Your task to perform on an android device: Open Youtube and go to the subscriptions tab Image 0: 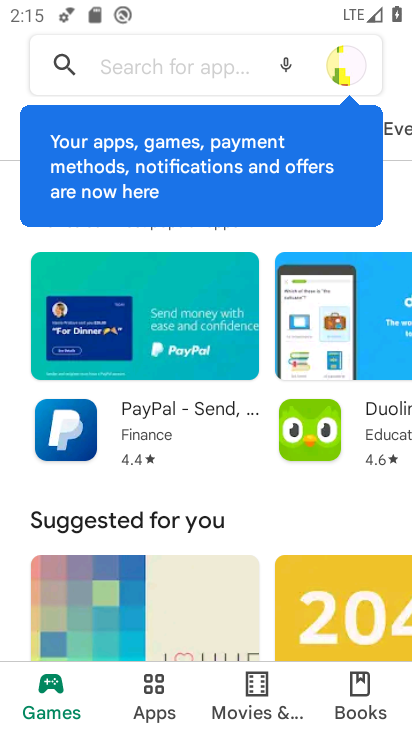
Step 0: press home button
Your task to perform on an android device: Open Youtube and go to the subscriptions tab Image 1: 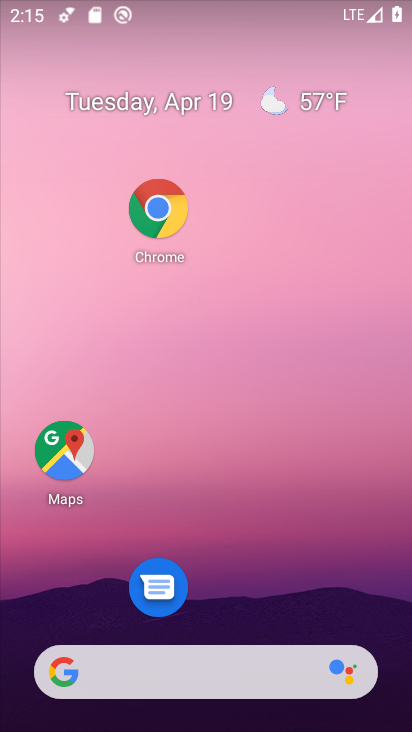
Step 1: drag from (223, 477) to (145, 141)
Your task to perform on an android device: Open Youtube and go to the subscriptions tab Image 2: 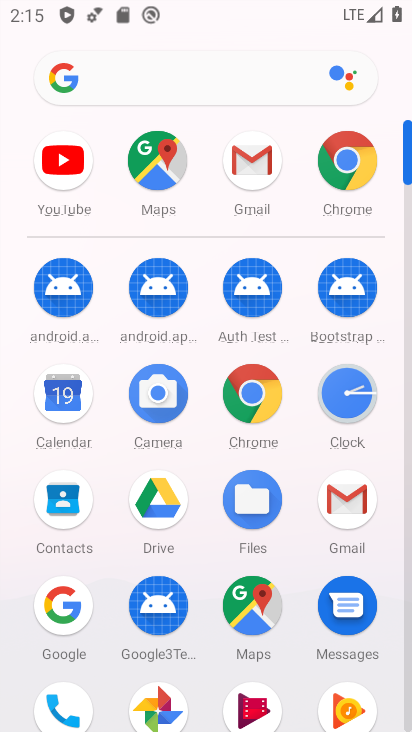
Step 2: click (61, 153)
Your task to perform on an android device: Open Youtube and go to the subscriptions tab Image 3: 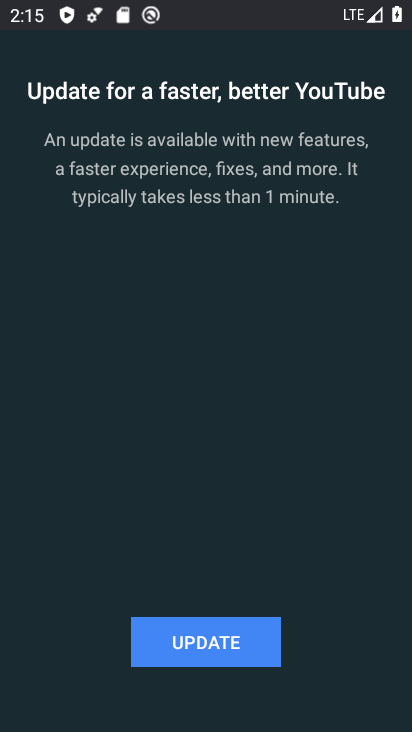
Step 3: click (193, 641)
Your task to perform on an android device: Open Youtube and go to the subscriptions tab Image 4: 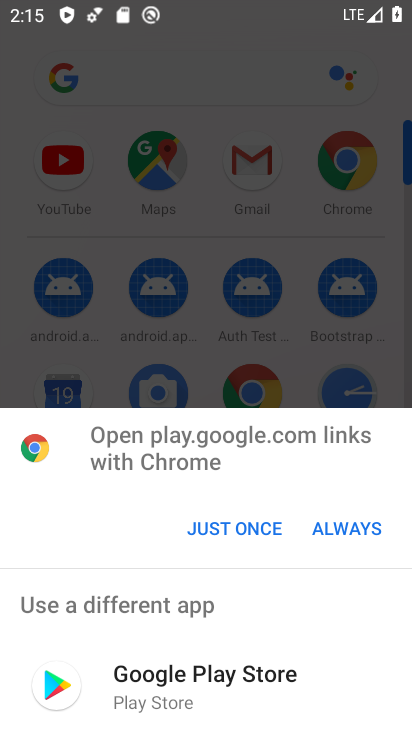
Step 4: click (251, 524)
Your task to perform on an android device: Open Youtube and go to the subscriptions tab Image 5: 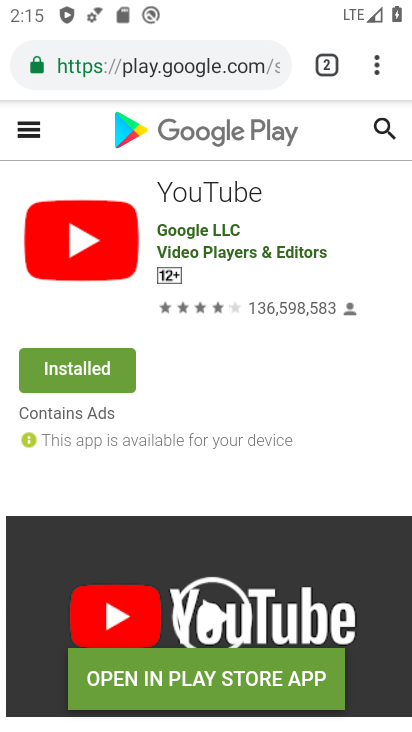
Step 5: click (75, 361)
Your task to perform on an android device: Open Youtube and go to the subscriptions tab Image 6: 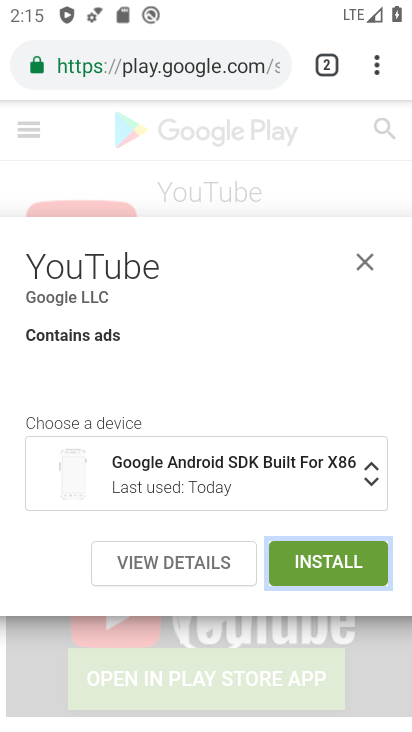
Step 6: click (360, 260)
Your task to perform on an android device: Open Youtube and go to the subscriptions tab Image 7: 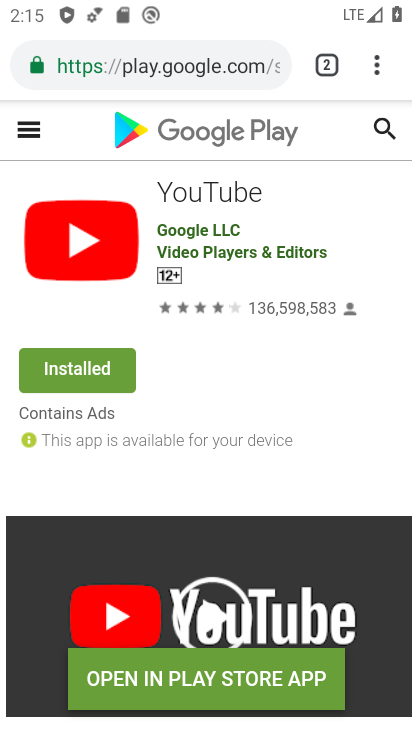
Step 7: drag from (237, 640) to (280, 367)
Your task to perform on an android device: Open Youtube and go to the subscriptions tab Image 8: 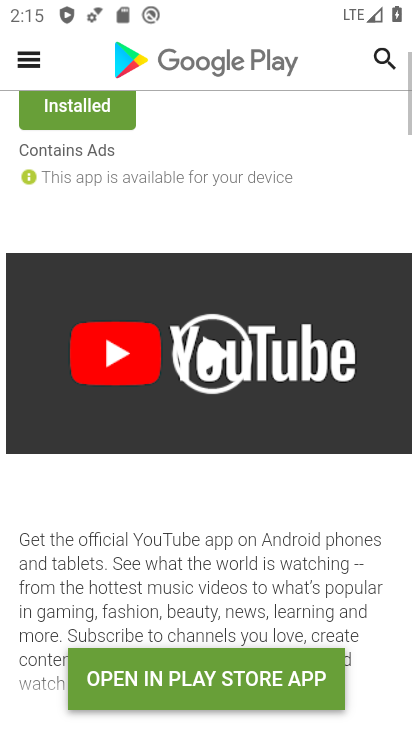
Step 8: drag from (227, 612) to (175, 294)
Your task to perform on an android device: Open Youtube and go to the subscriptions tab Image 9: 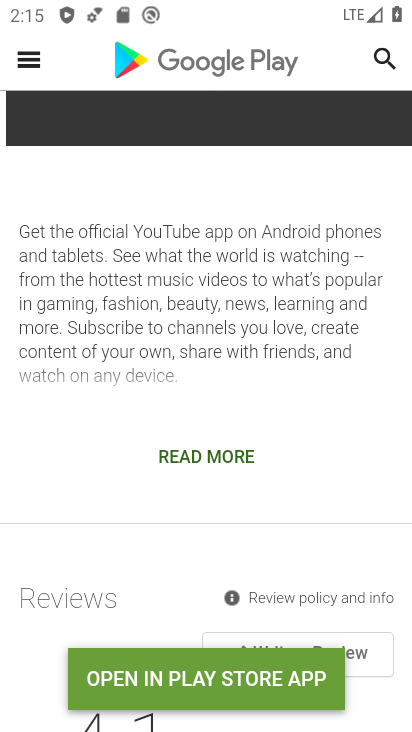
Step 9: drag from (249, 345) to (280, 595)
Your task to perform on an android device: Open Youtube and go to the subscriptions tab Image 10: 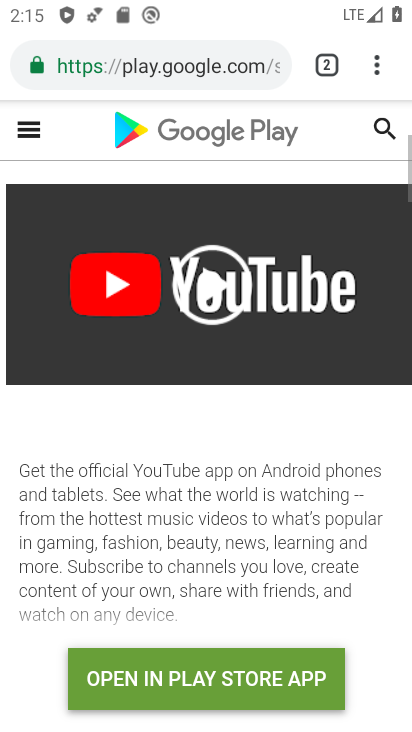
Step 10: drag from (246, 381) to (259, 547)
Your task to perform on an android device: Open Youtube and go to the subscriptions tab Image 11: 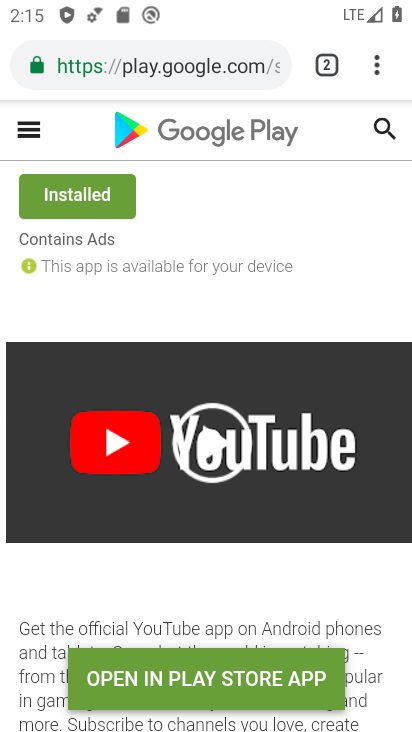
Step 11: click (221, 435)
Your task to perform on an android device: Open Youtube and go to the subscriptions tab Image 12: 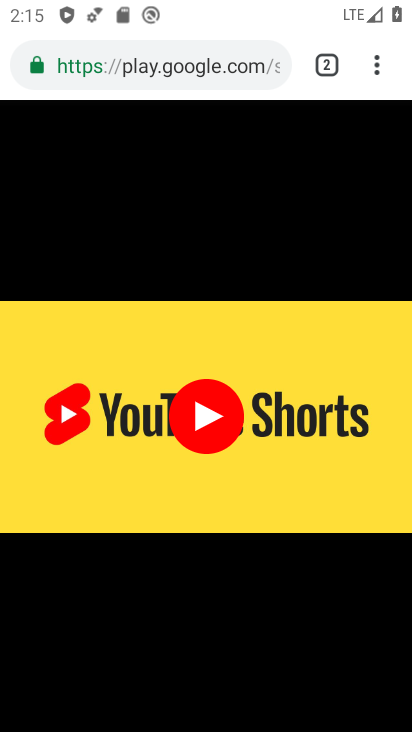
Step 12: click (188, 412)
Your task to perform on an android device: Open Youtube and go to the subscriptions tab Image 13: 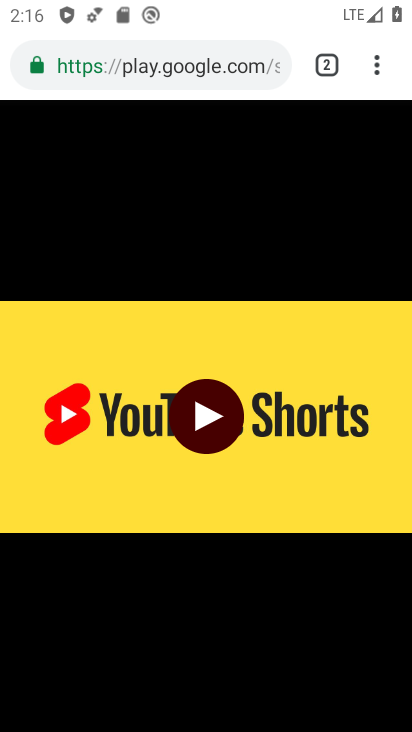
Step 13: click (204, 424)
Your task to perform on an android device: Open Youtube and go to the subscriptions tab Image 14: 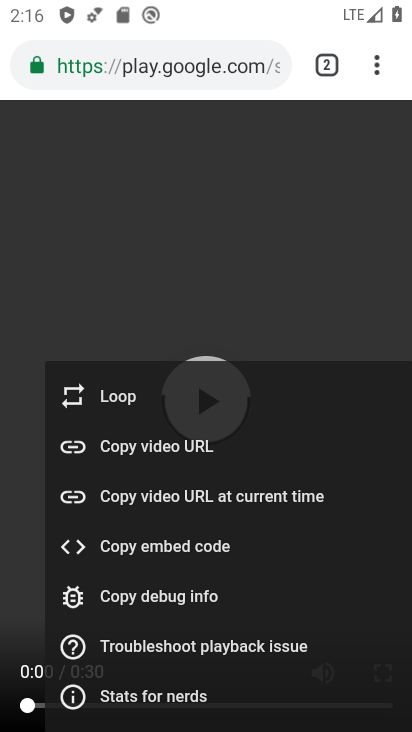
Step 14: click (203, 413)
Your task to perform on an android device: Open Youtube and go to the subscriptions tab Image 15: 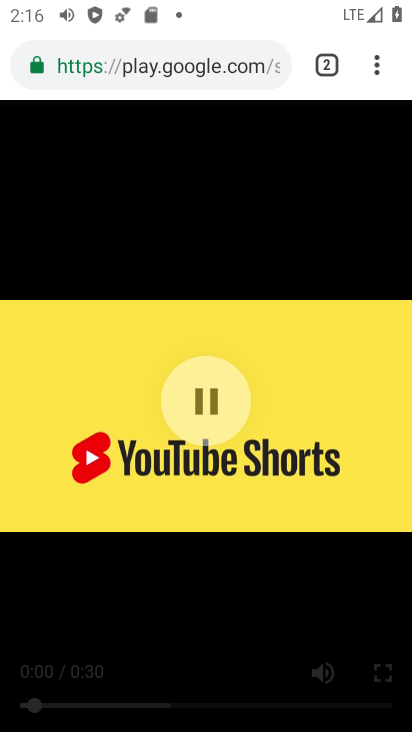
Step 15: click (164, 290)
Your task to perform on an android device: Open Youtube and go to the subscriptions tab Image 16: 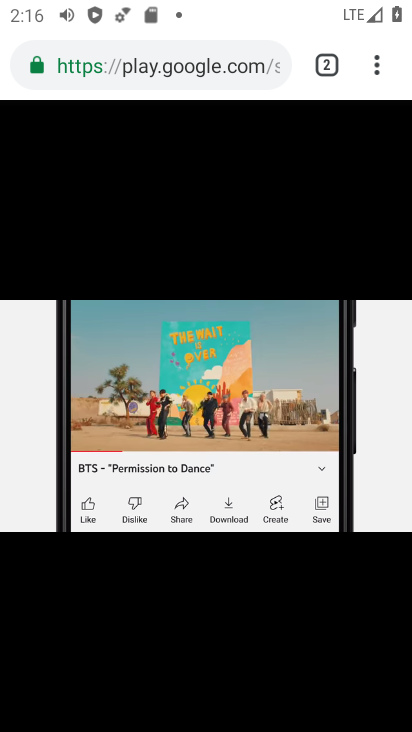
Step 16: click (218, 603)
Your task to perform on an android device: Open Youtube and go to the subscriptions tab Image 17: 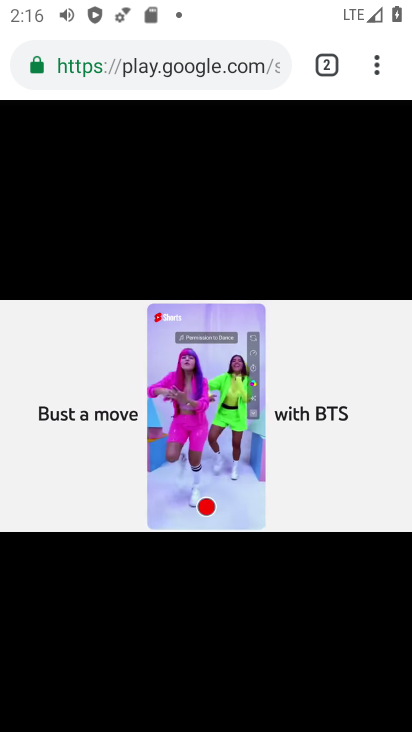
Step 17: press home button
Your task to perform on an android device: Open Youtube and go to the subscriptions tab Image 18: 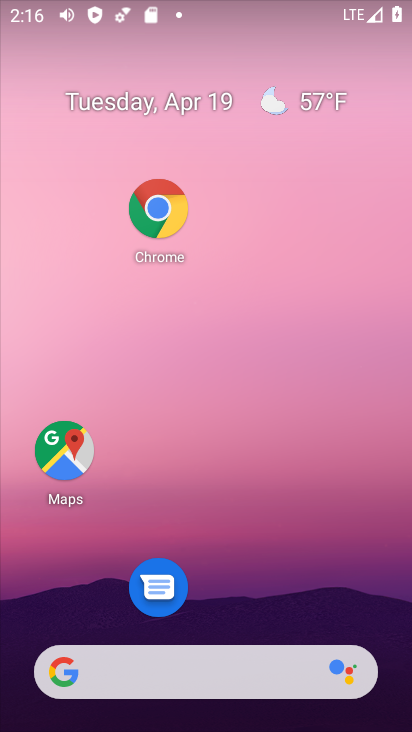
Step 18: drag from (227, 472) to (165, 210)
Your task to perform on an android device: Open Youtube and go to the subscriptions tab Image 19: 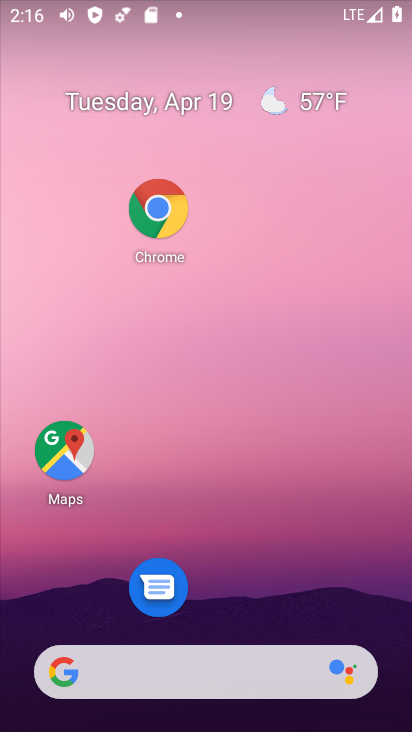
Step 19: click (126, 322)
Your task to perform on an android device: Open Youtube and go to the subscriptions tab Image 20: 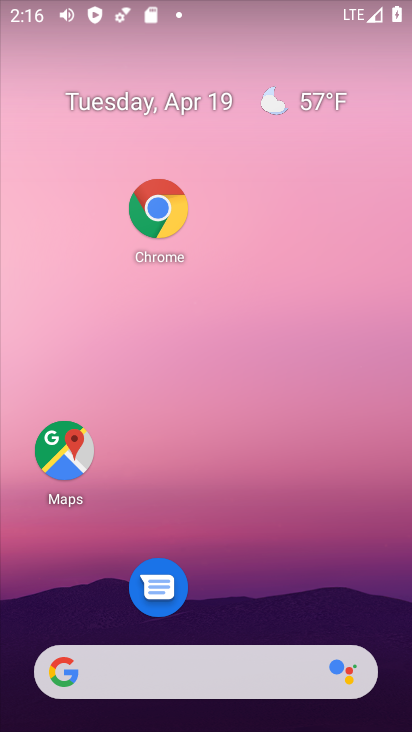
Step 20: drag from (208, 369) to (167, 204)
Your task to perform on an android device: Open Youtube and go to the subscriptions tab Image 21: 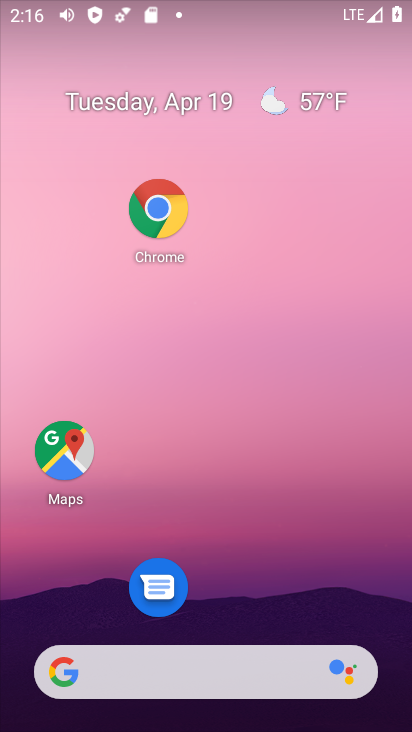
Step 21: drag from (302, 610) to (215, 194)
Your task to perform on an android device: Open Youtube and go to the subscriptions tab Image 22: 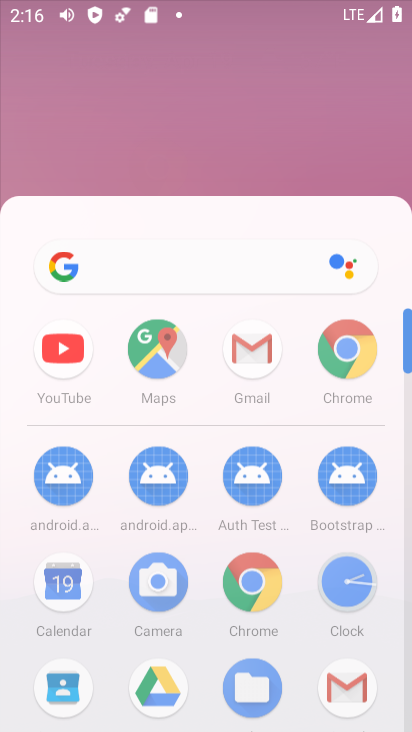
Step 22: drag from (309, 517) to (194, 176)
Your task to perform on an android device: Open Youtube and go to the subscriptions tab Image 23: 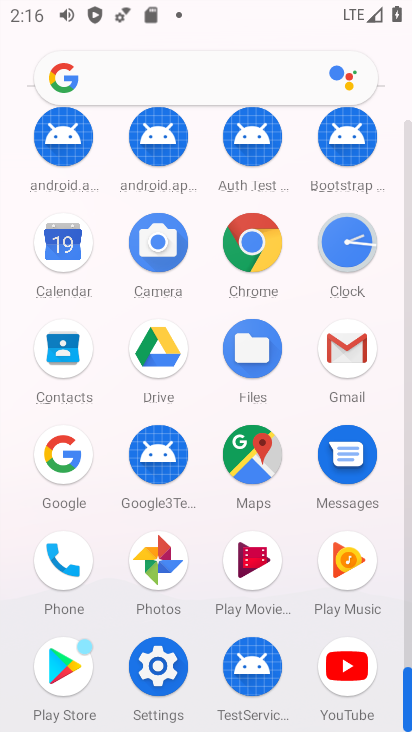
Step 23: click (342, 666)
Your task to perform on an android device: Open Youtube and go to the subscriptions tab Image 24: 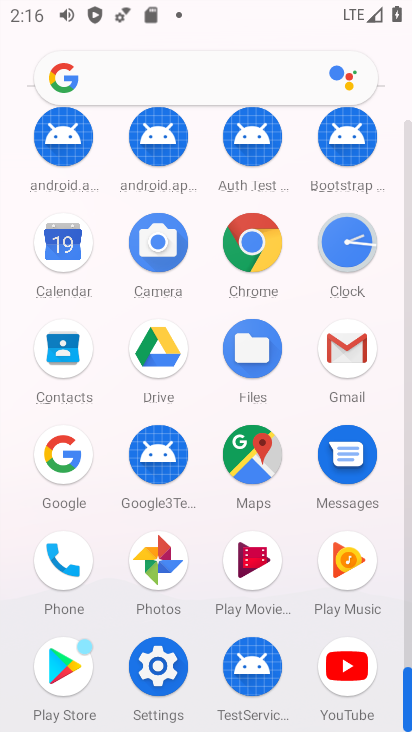
Step 24: click (342, 659)
Your task to perform on an android device: Open Youtube and go to the subscriptions tab Image 25: 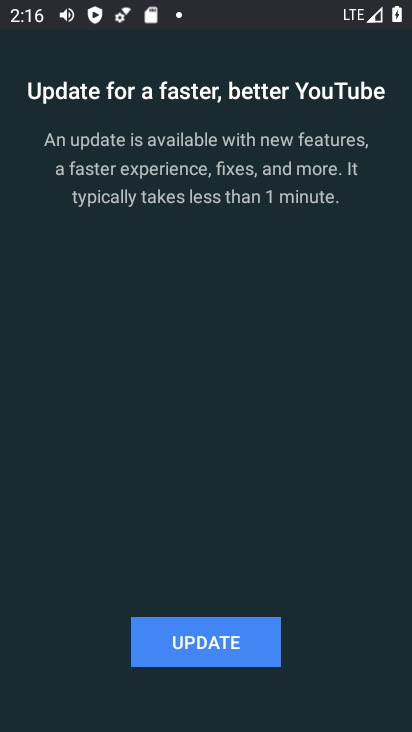
Step 25: click (193, 640)
Your task to perform on an android device: Open Youtube and go to the subscriptions tab Image 26: 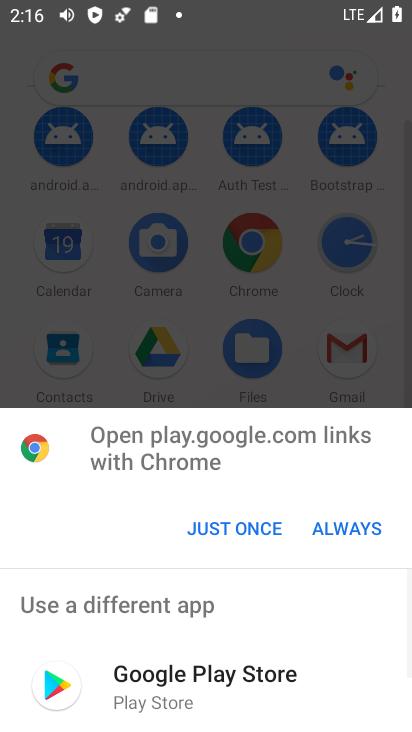
Step 26: click (174, 673)
Your task to perform on an android device: Open Youtube and go to the subscriptions tab Image 27: 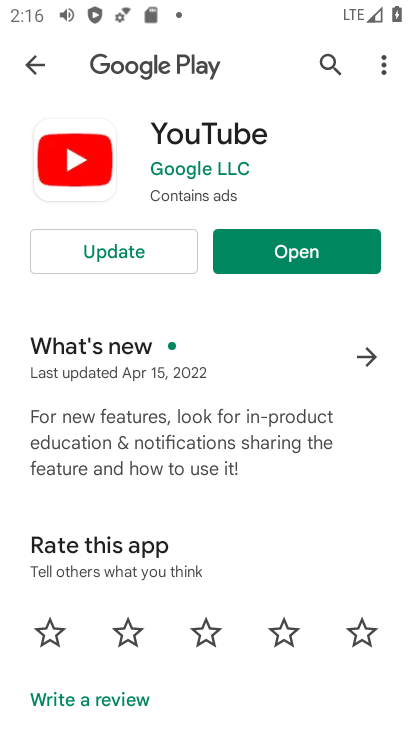
Step 27: click (94, 245)
Your task to perform on an android device: Open Youtube and go to the subscriptions tab Image 28: 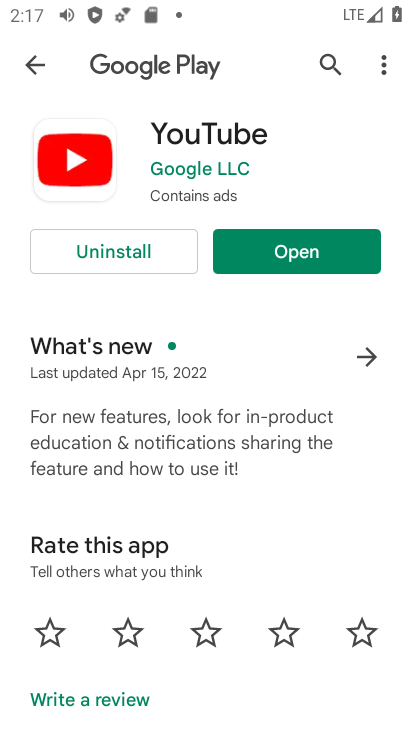
Step 28: click (287, 251)
Your task to perform on an android device: Open Youtube and go to the subscriptions tab Image 29: 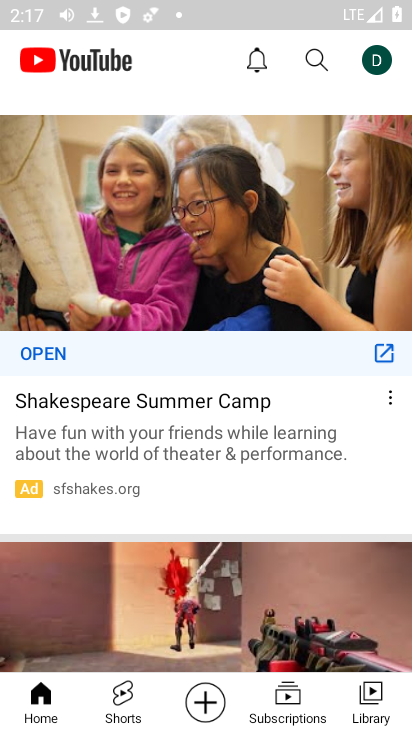
Step 29: click (285, 690)
Your task to perform on an android device: Open Youtube and go to the subscriptions tab Image 30: 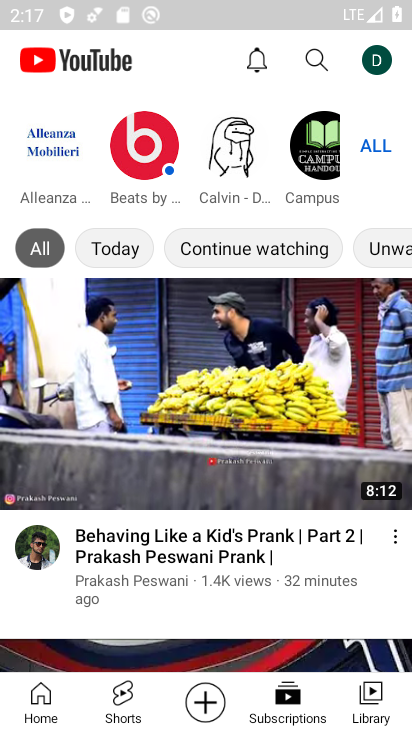
Step 30: click (204, 389)
Your task to perform on an android device: Open Youtube and go to the subscriptions tab Image 31: 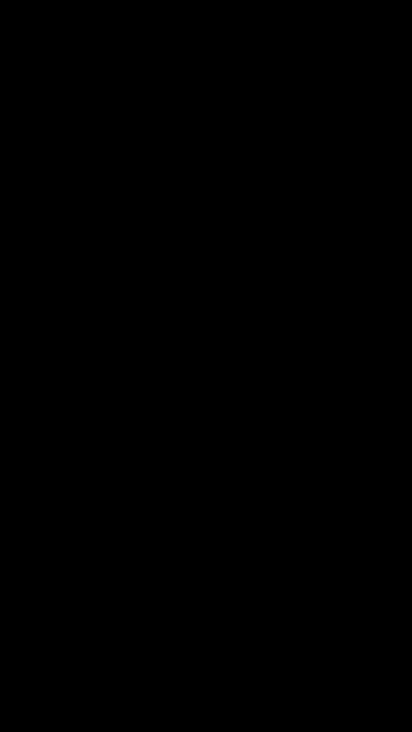
Step 31: click (190, 166)
Your task to perform on an android device: Open Youtube and go to the subscriptions tab Image 32: 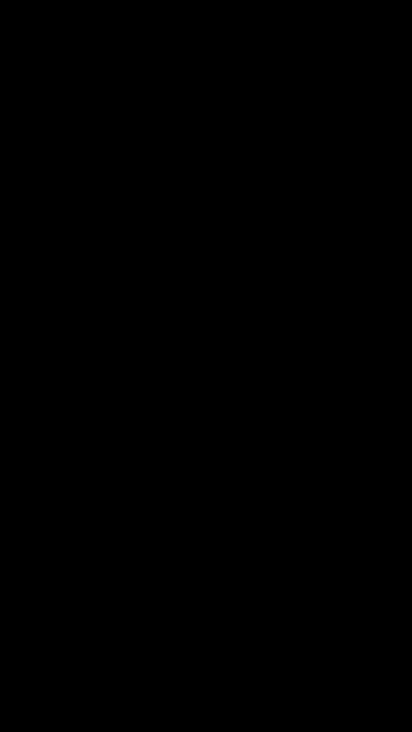
Step 32: task complete